Your task to perform on an android device: Open internet settings Image 0: 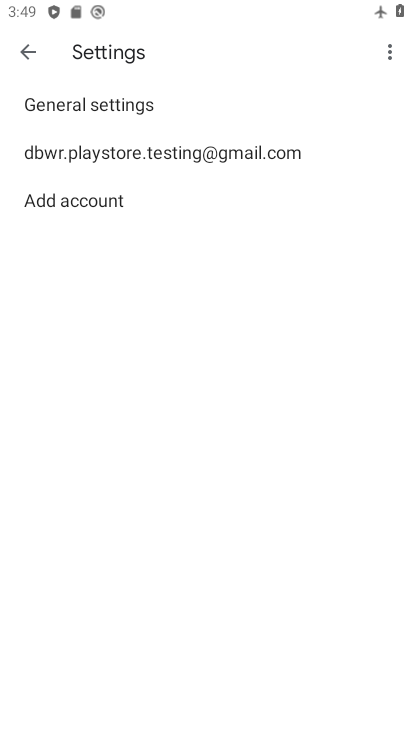
Step 0: press home button
Your task to perform on an android device: Open internet settings Image 1: 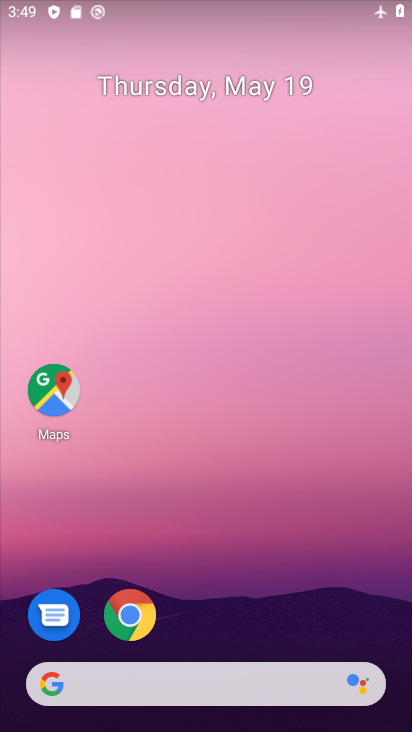
Step 1: drag from (267, 570) to (306, 16)
Your task to perform on an android device: Open internet settings Image 2: 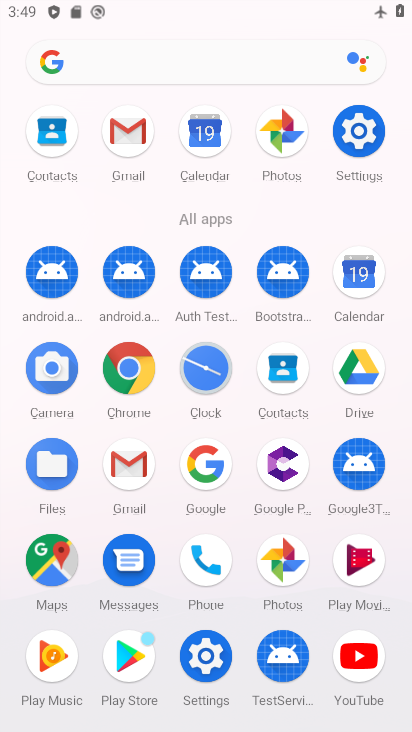
Step 2: click (365, 145)
Your task to perform on an android device: Open internet settings Image 3: 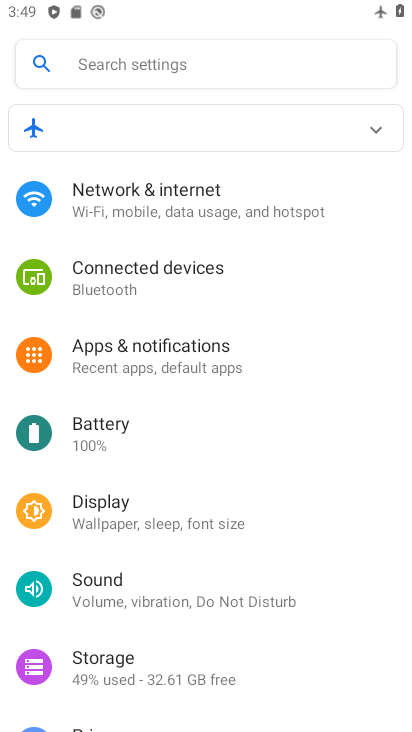
Step 3: click (138, 209)
Your task to perform on an android device: Open internet settings Image 4: 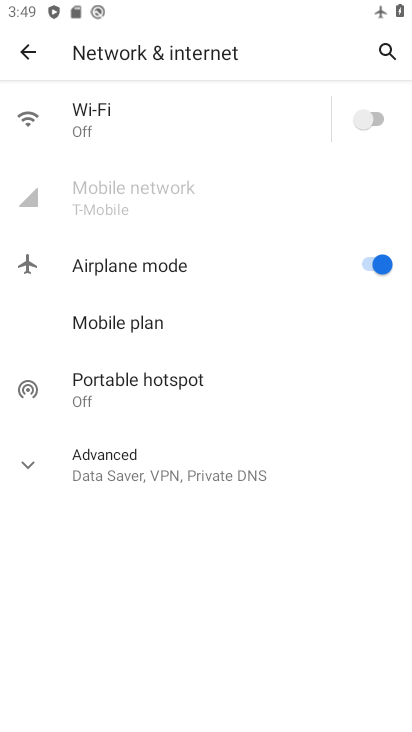
Step 4: task complete